Your task to perform on an android device: turn off picture-in-picture Image 0: 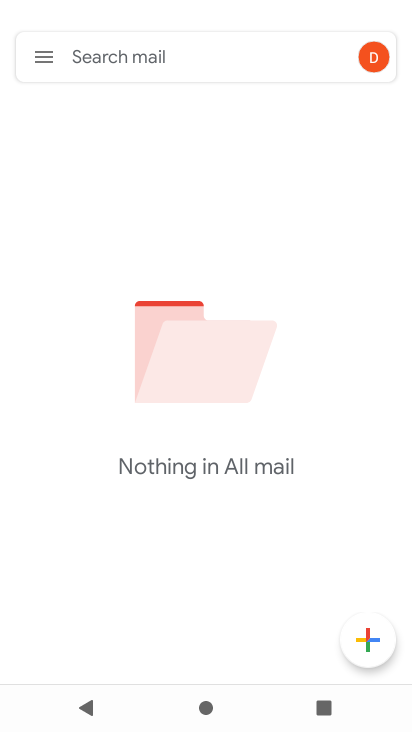
Step 0: press home button
Your task to perform on an android device: turn off picture-in-picture Image 1: 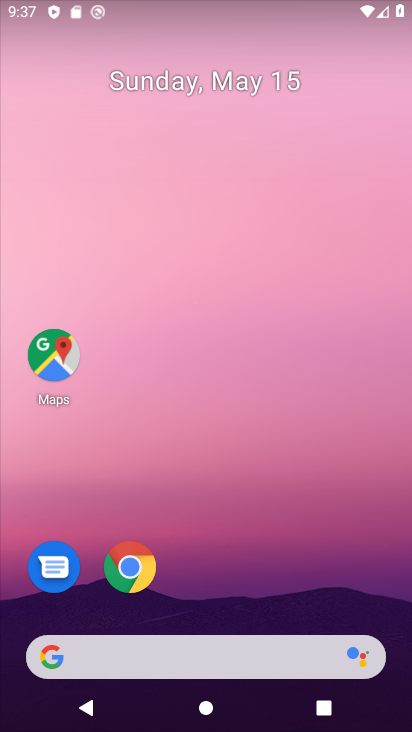
Step 1: click (126, 566)
Your task to perform on an android device: turn off picture-in-picture Image 2: 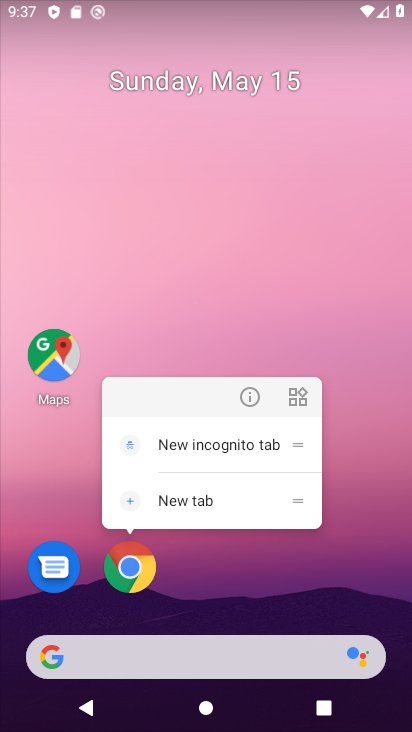
Step 2: click (249, 394)
Your task to perform on an android device: turn off picture-in-picture Image 3: 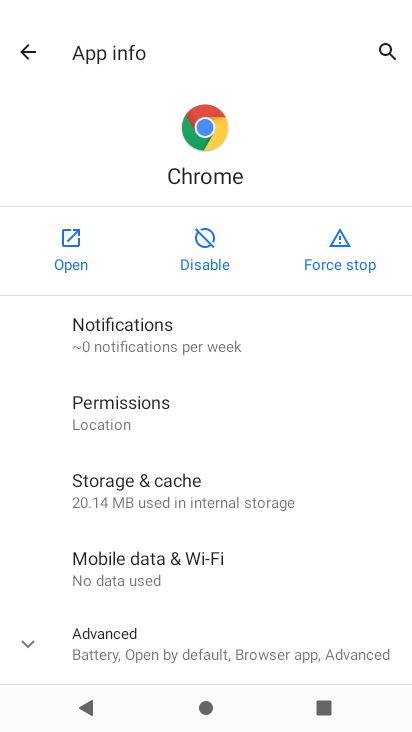
Step 3: drag from (222, 593) to (215, 199)
Your task to perform on an android device: turn off picture-in-picture Image 4: 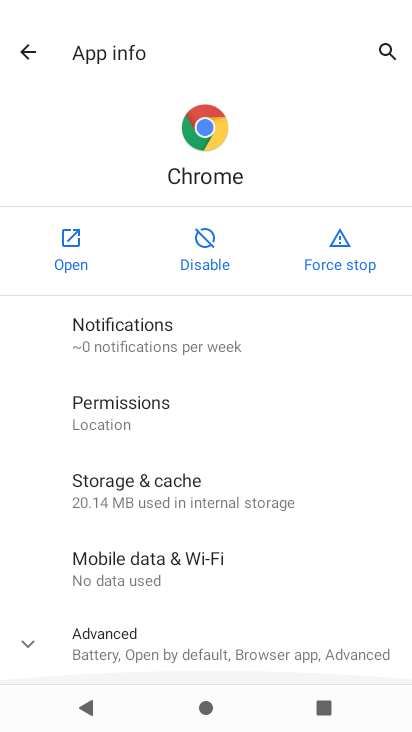
Step 4: click (138, 633)
Your task to perform on an android device: turn off picture-in-picture Image 5: 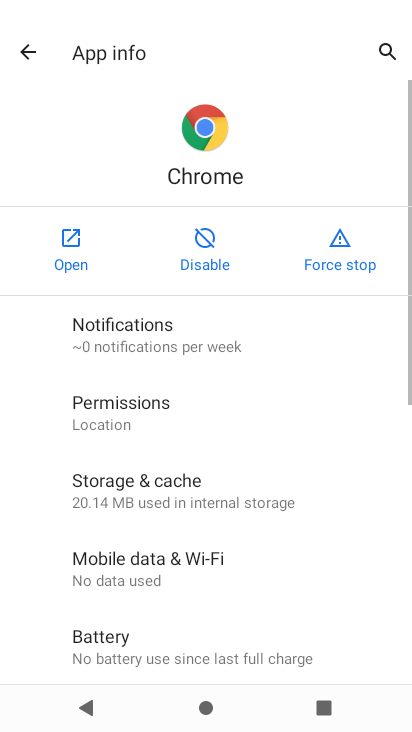
Step 5: drag from (317, 424) to (338, 46)
Your task to perform on an android device: turn off picture-in-picture Image 6: 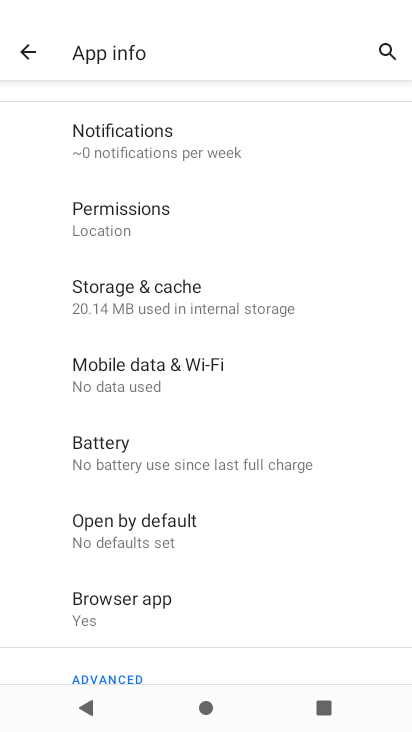
Step 6: drag from (226, 574) to (235, 127)
Your task to perform on an android device: turn off picture-in-picture Image 7: 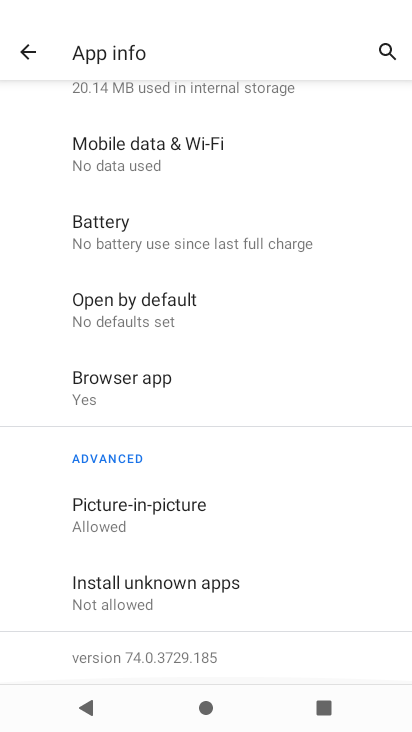
Step 7: click (147, 527)
Your task to perform on an android device: turn off picture-in-picture Image 8: 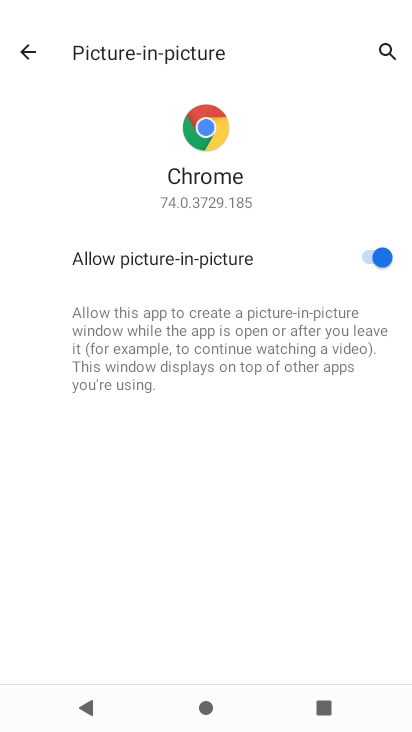
Step 8: click (383, 256)
Your task to perform on an android device: turn off picture-in-picture Image 9: 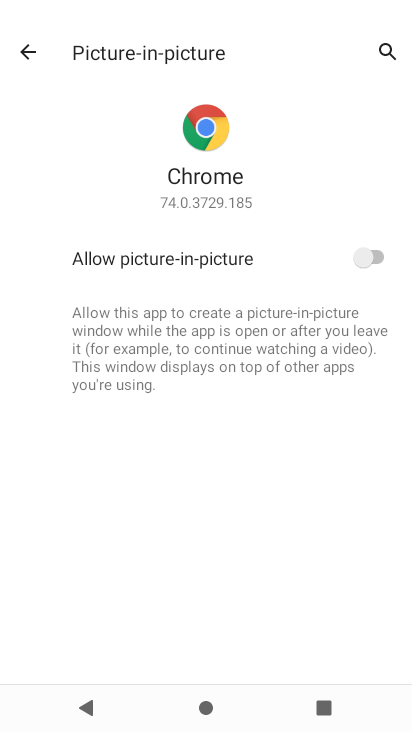
Step 9: task complete